Your task to perform on an android device: Search for 3d printed chess sets on Etsy. Image 0: 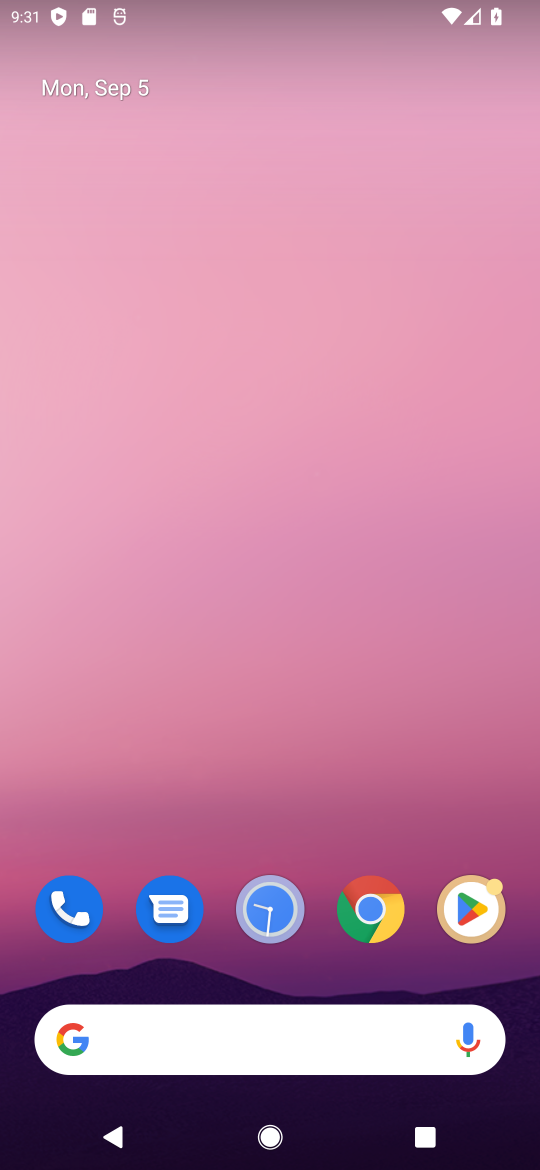
Step 0: click (383, 911)
Your task to perform on an android device: Search for 3d printed chess sets on Etsy. Image 1: 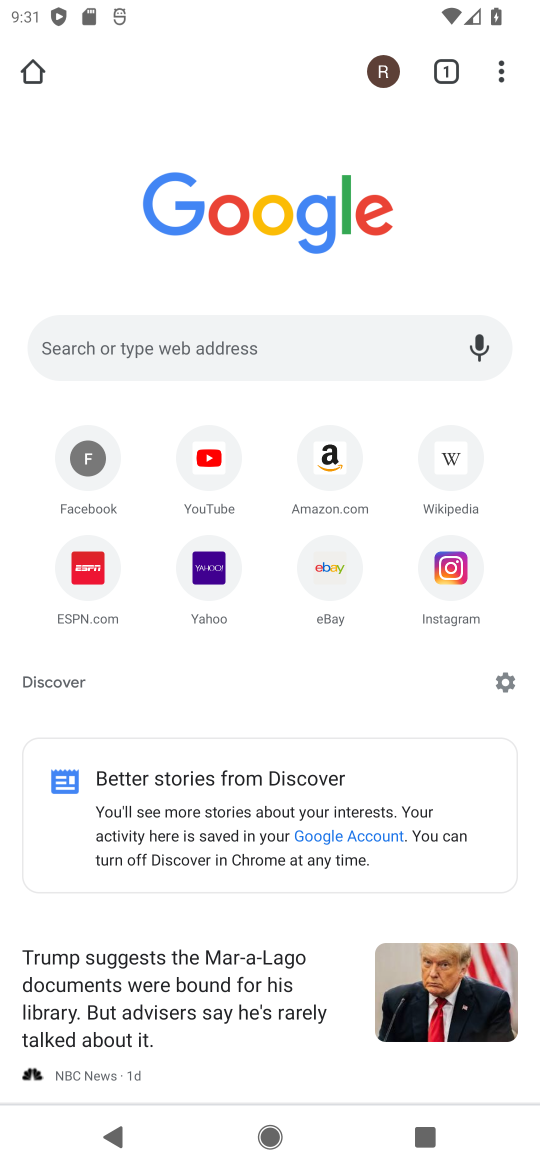
Step 1: click (316, 464)
Your task to perform on an android device: Search for 3d printed chess sets on Etsy. Image 2: 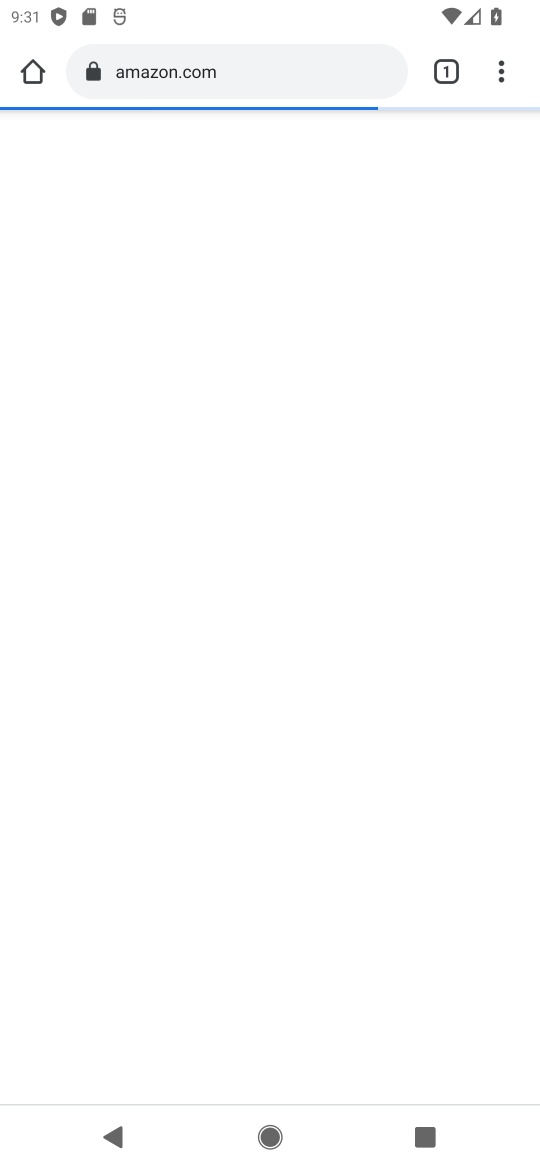
Step 2: task complete